Your task to perform on an android device: View the shopping cart on bestbuy. Search for "amazon basics triple a" on bestbuy, select the first entry, and add it to the cart. Image 0: 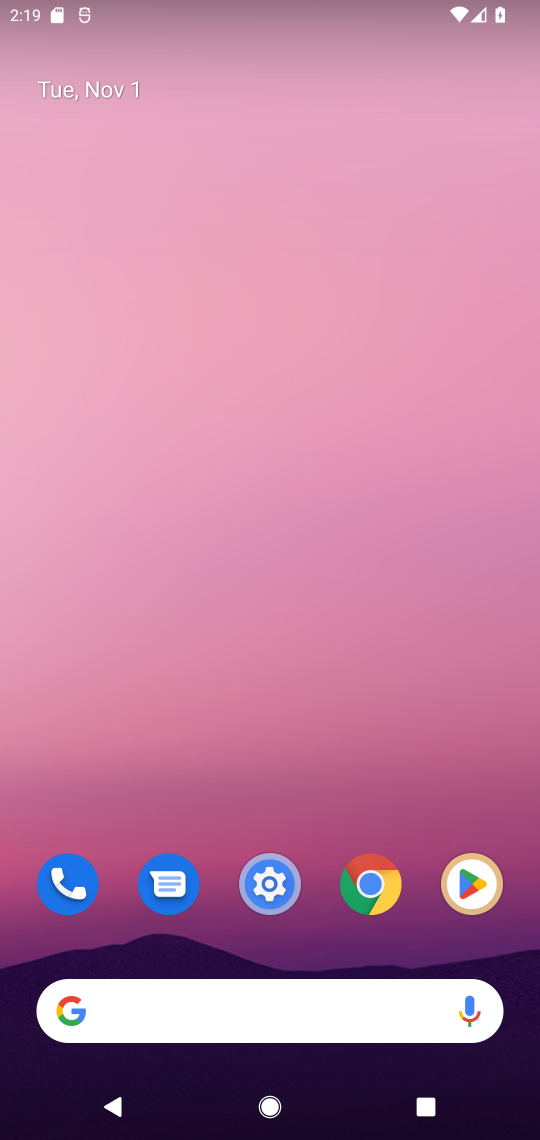
Step 0: press home button
Your task to perform on an android device: View the shopping cart on bestbuy. Search for "amazon basics triple a" on bestbuy, select the first entry, and add it to the cart. Image 1: 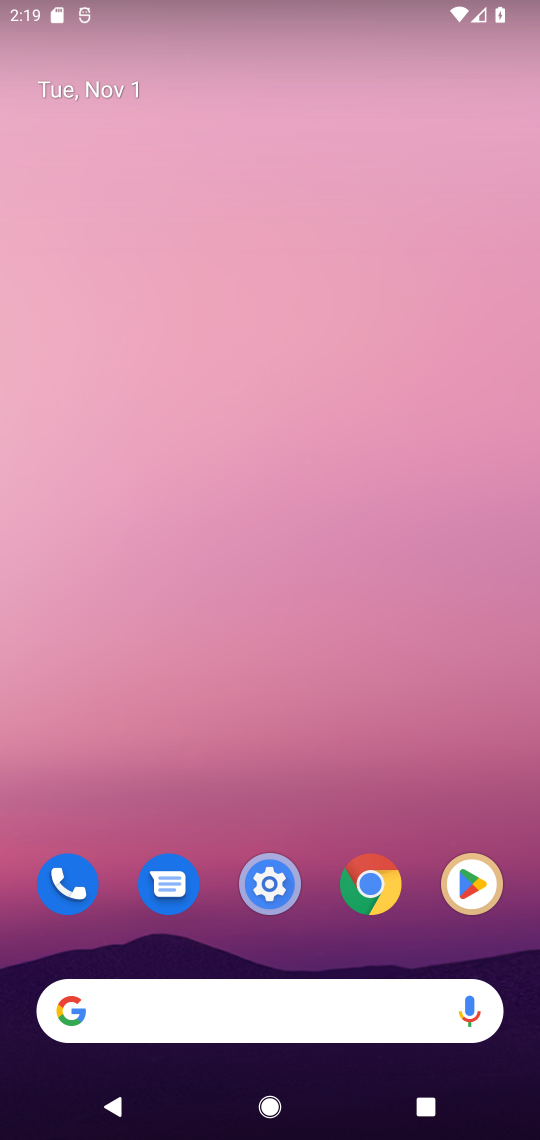
Step 1: click (102, 1012)
Your task to perform on an android device: View the shopping cart on bestbuy. Search for "amazon basics triple a" on bestbuy, select the first entry, and add it to the cart. Image 2: 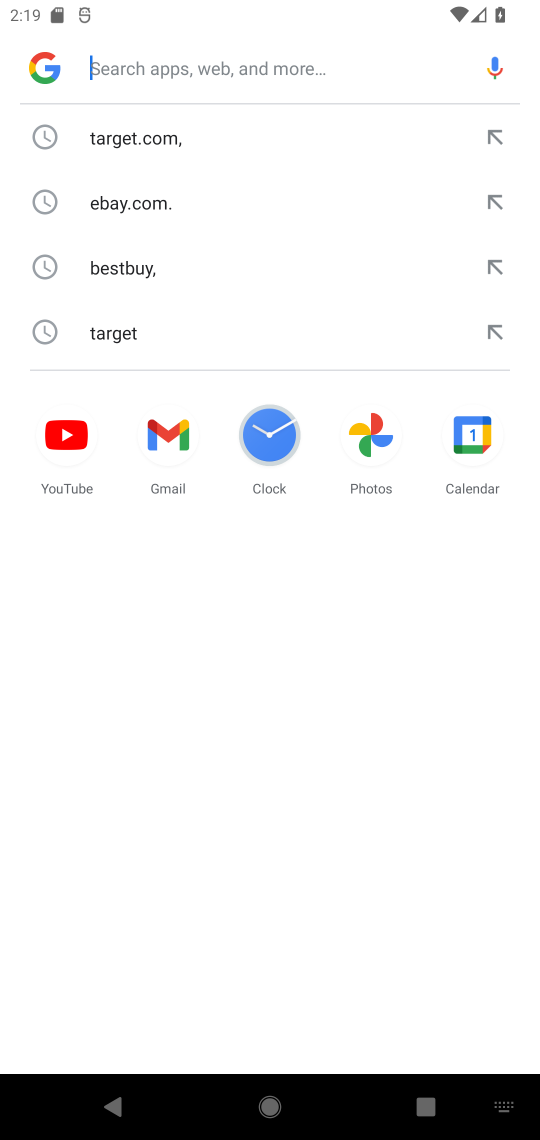
Step 2: type "bestbuy"
Your task to perform on an android device: View the shopping cart on bestbuy. Search for "amazon basics triple a" on bestbuy, select the first entry, and add it to the cart. Image 3: 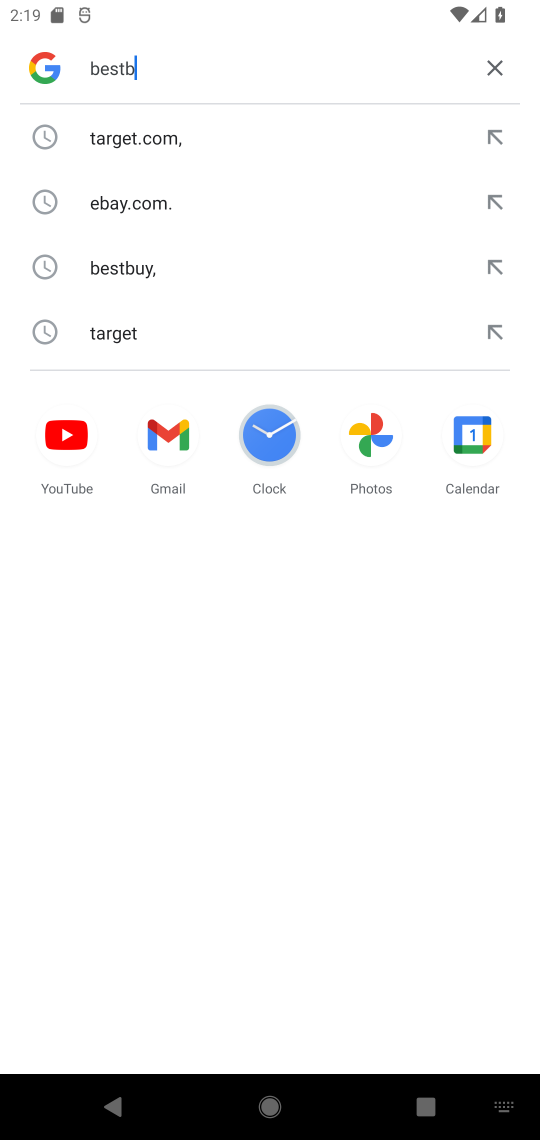
Step 3: press enter
Your task to perform on an android device: View the shopping cart on bestbuy. Search for "amazon basics triple a" on bestbuy, select the first entry, and add it to the cart. Image 4: 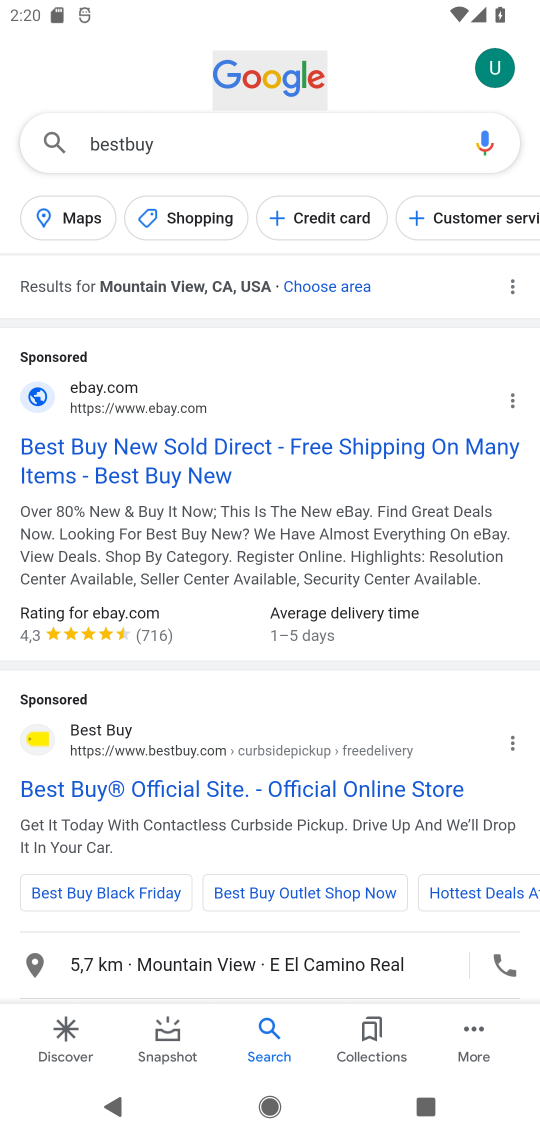
Step 4: click (160, 465)
Your task to perform on an android device: View the shopping cart on bestbuy. Search for "amazon basics triple a" on bestbuy, select the first entry, and add it to the cart. Image 5: 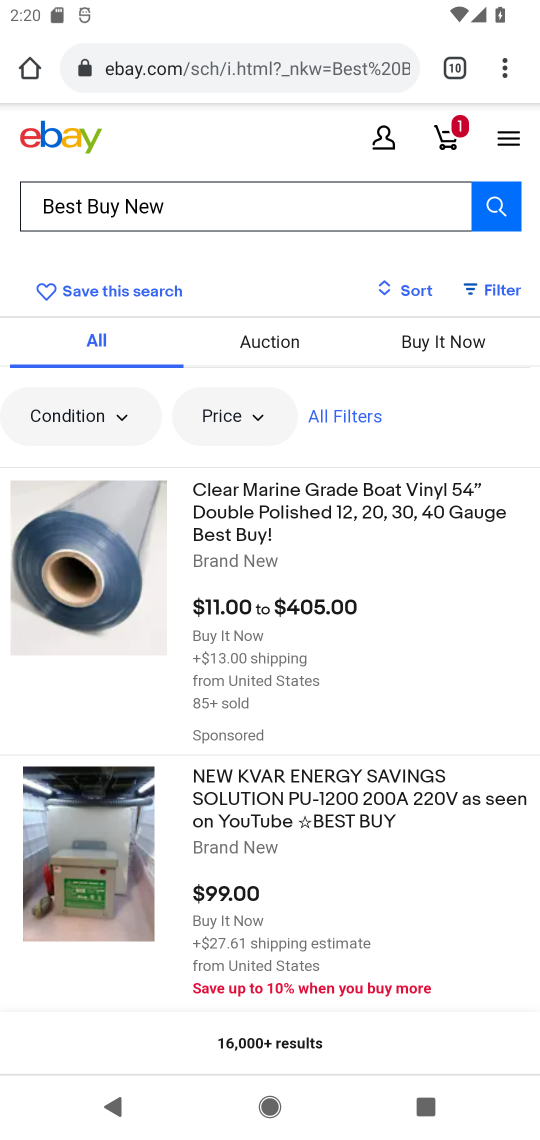
Step 5: press back button
Your task to perform on an android device: View the shopping cart on bestbuy. Search for "amazon basics triple a" on bestbuy, select the first entry, and add it to the cart. Image 6: 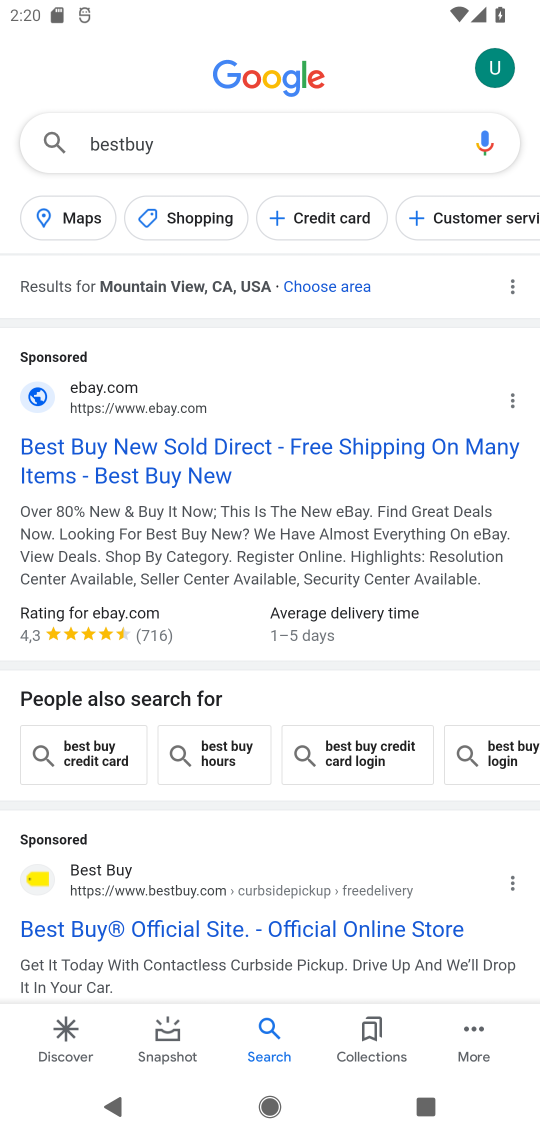
Step 6: click (205, 929)
Your task to perform on an android device: View the shopping cart on bestbuy. Search for "amazon basics triple a" on bestbuy, select the first entry, and add it to the cart. Image 7: 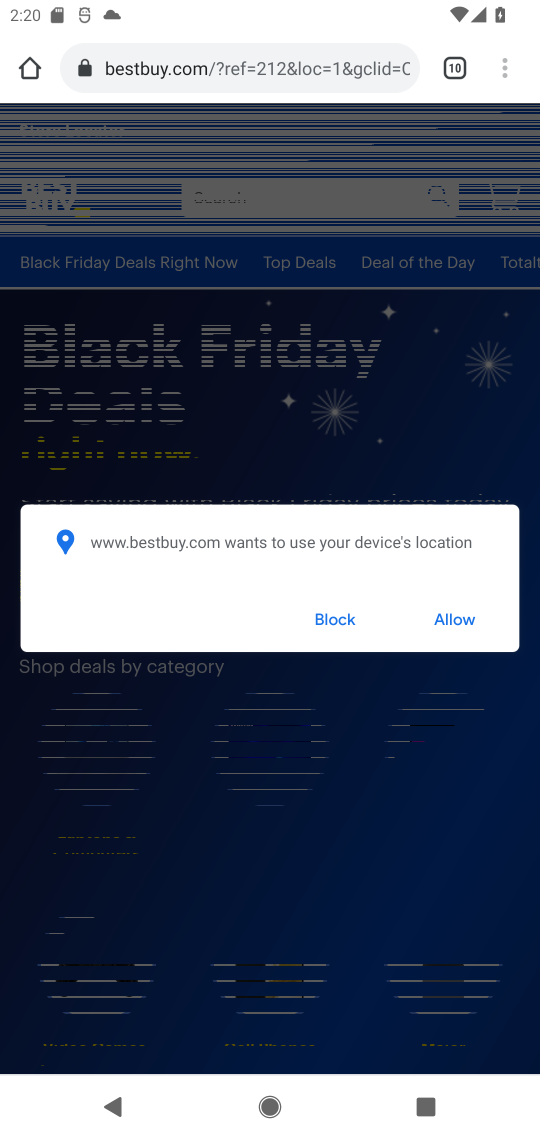
Step 7: click (334, 620)
Your task to perform on an android device: View the shopping cart on bestbuy. Search for "amazon basics triple a" on bestbuy, select the first entry, and add it to the cart. Image 8: 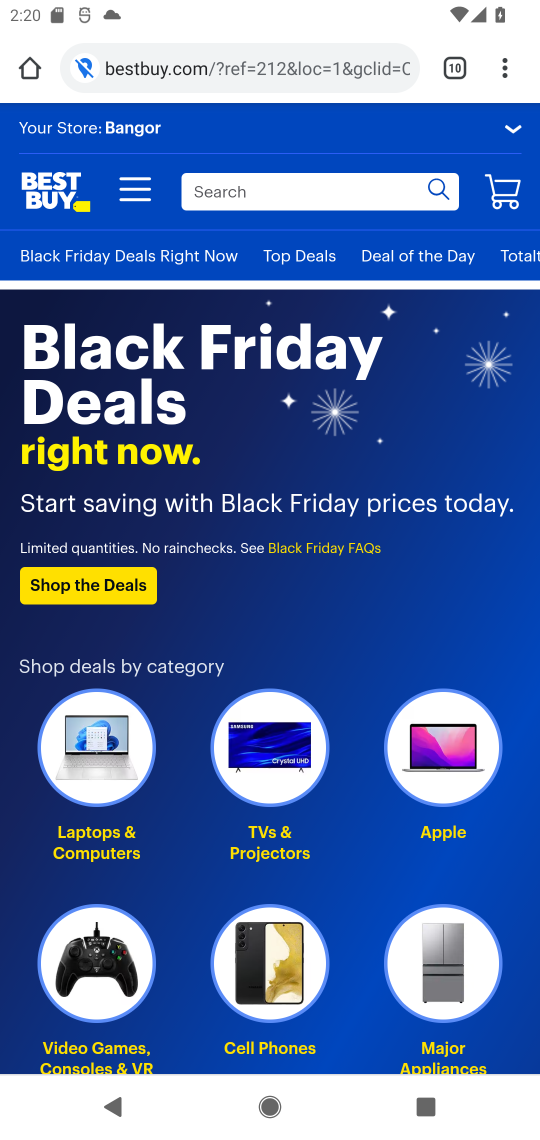
Step 8: click (504, 189)
Your task to perform on an android device: View the shopping cart on bestbuy. Search for "amazon basics triple a" on bestbuy, select the first entry, and add it to the cart. Image 9: 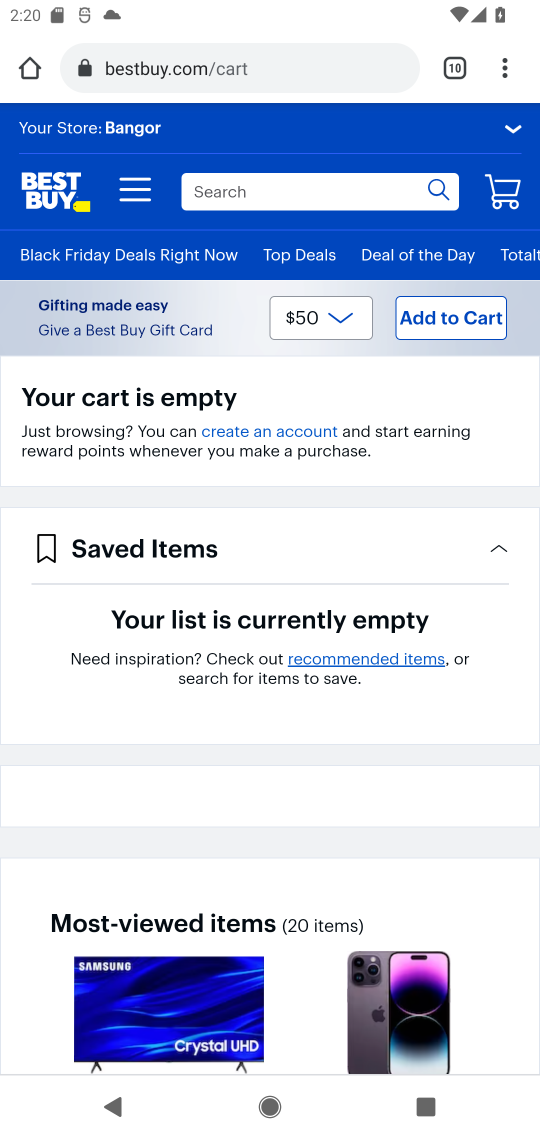
Step 9: click (230, 190)
Your task to perform on an android device: View the shopping cart on bestbuy. Search for "amazon basics triple a" on bestbuy, select the first entry, and add it to the cart. Image 10: 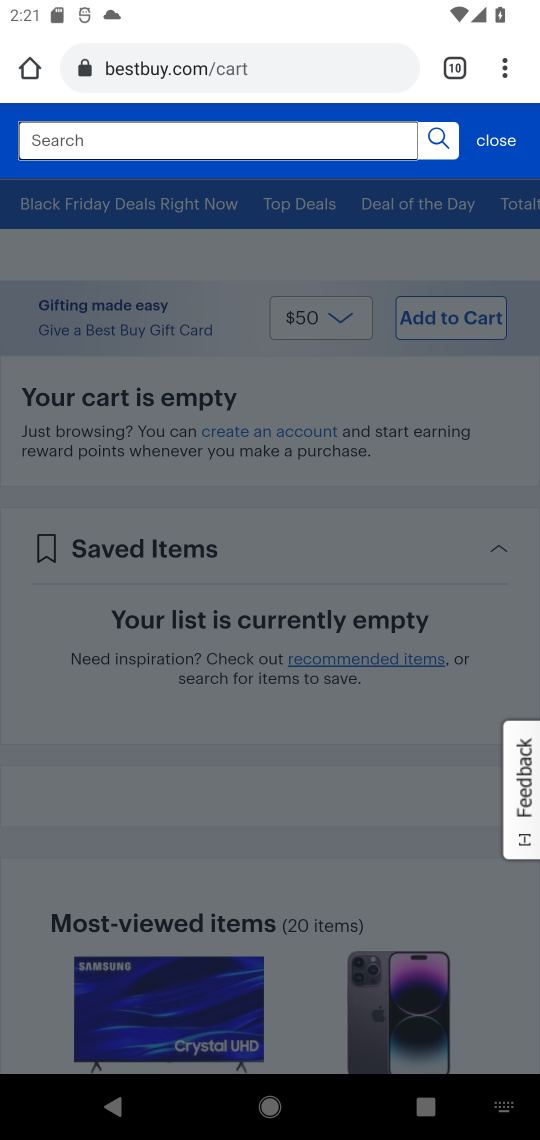
Step 10: type "amazon basics triple a"
Your task to perform on an android device: View the shopping cart on bestbuy. Search for "amazon basics triple a" on bestbuy, select the first entry, and add it to the cart. Image 11: 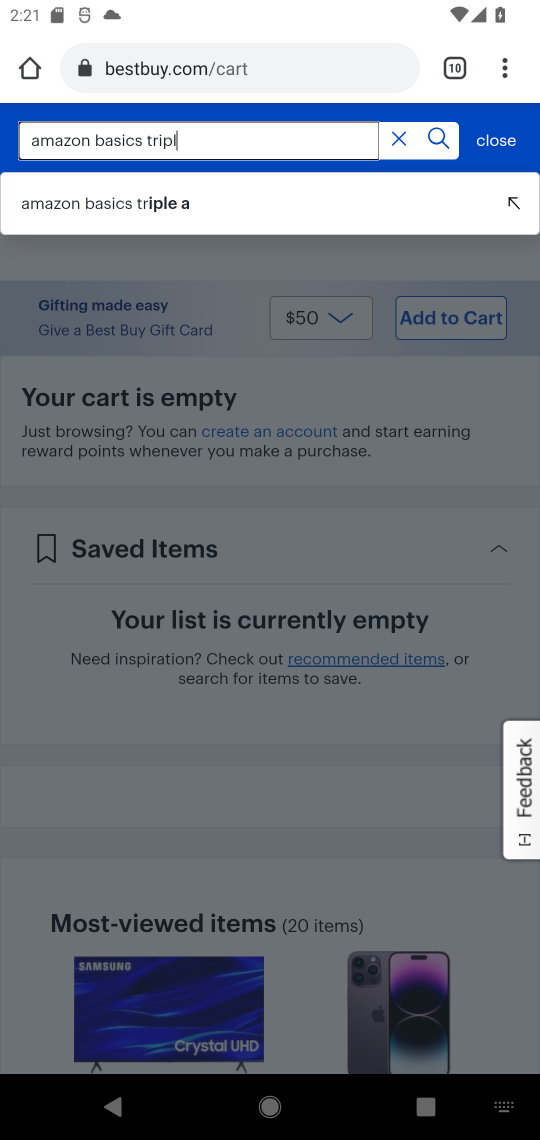
Step 11: press enter
Your task to perform on an android device: View the shopping cart on bestbuy. Search for "amazon basics triple a" on bestbuy, select the first entry, and add it to the cart. Image 12: 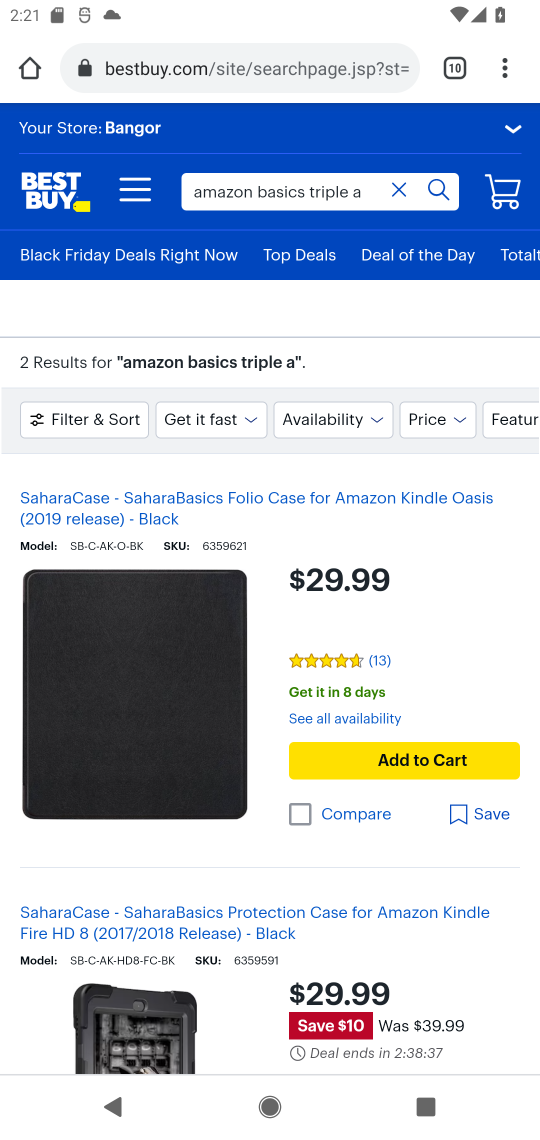
Step 12: task complete